Your task to perform on an android device: turn off improve location accuracy Image 0: 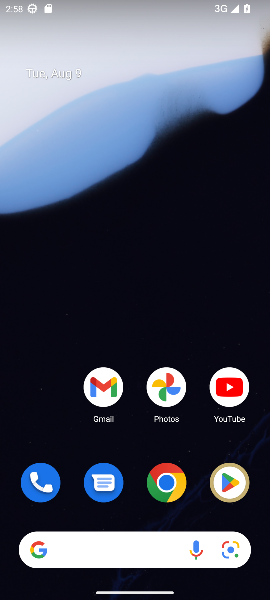
Step 0: drag from (130, 437) to (151, 113)
Your task to perform on an android device: turn off improve location accuracy Image 1: 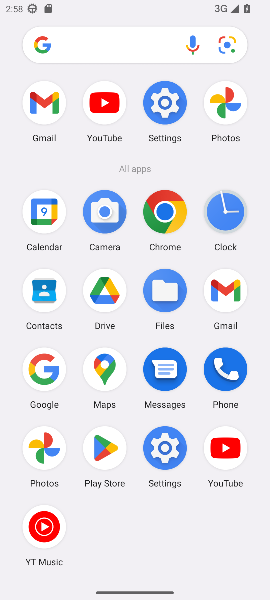
Step 1: click (154, 122)
Your task to perform on an android device: turn off improve location accuracy Image 2: 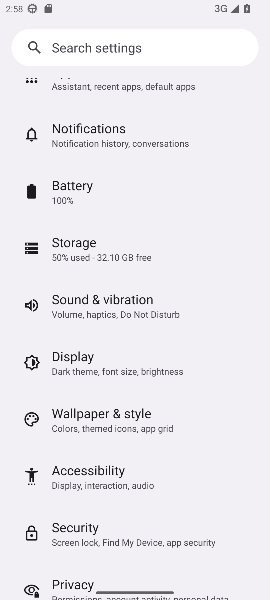
Step 2: drag from (121, 487) to (123, 258)
Your task to perform on an android device: turn off improve location accuracy Image 3: 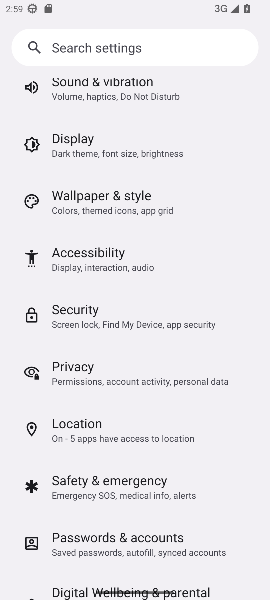
Step 3: click (112, 441)
Your task to perform on an android device: turn off improve location accuracy Image 4: 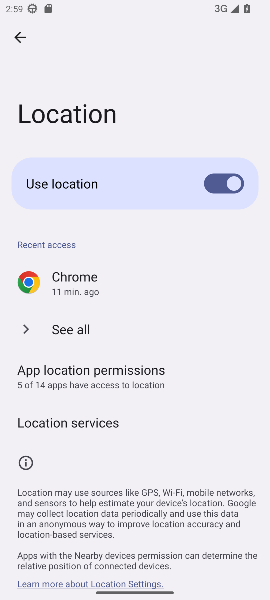
Step 4: click (100, 428)
Your task to perform on an android device: turn off improve location accuracy Image 5: 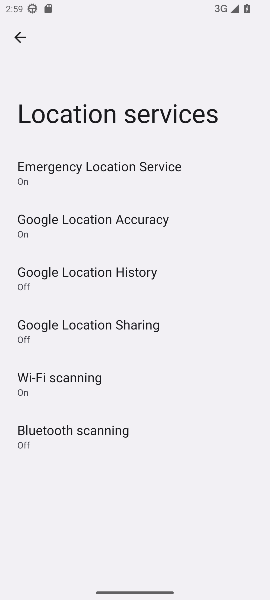
Step 5: click (171, 211)
Your task to perform on an android device: turn off improve location accuracy Image 6: 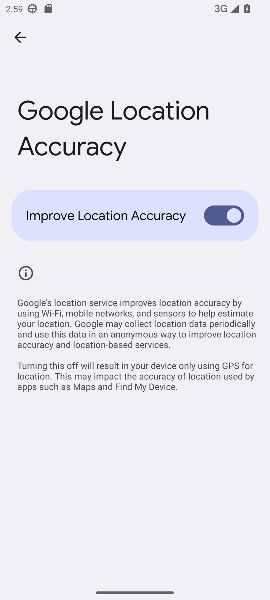
Step 6: click (205, 220)
Your task to perform on an android device: turn off improve location accuracy Image 7: 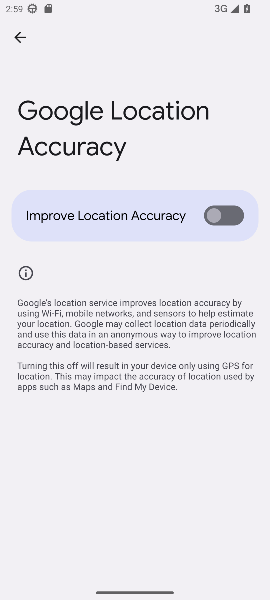
Step 7: task complete